Your task to perform on an android device: Search for the best websites on the internet Image 0: 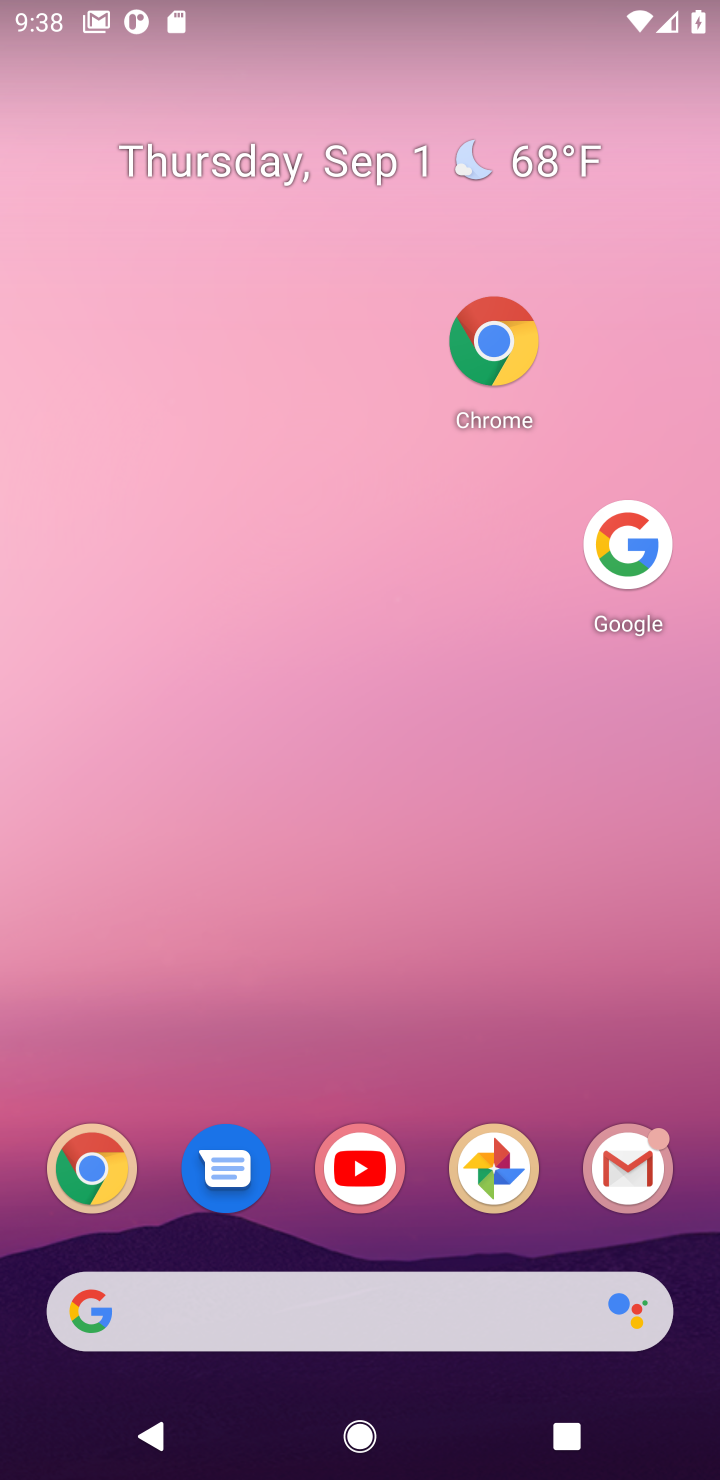
Step 0: drag from (248, 1122) to (350, 558)
Your task to perform on an android device: Search for the best websites on the internet Image 1: 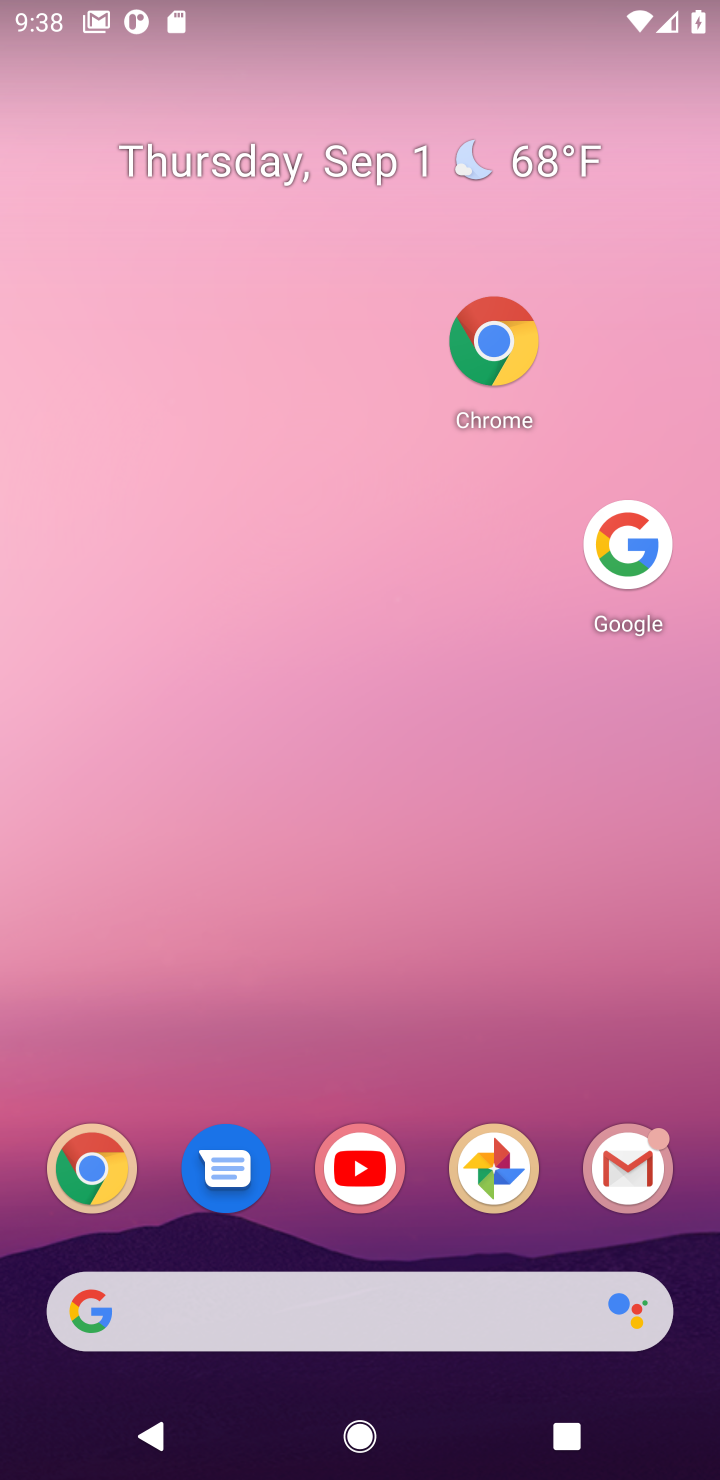
Step 1: click (633, 529)
Your task to perform on an android device: Search for the best websites on the internet Image 2: 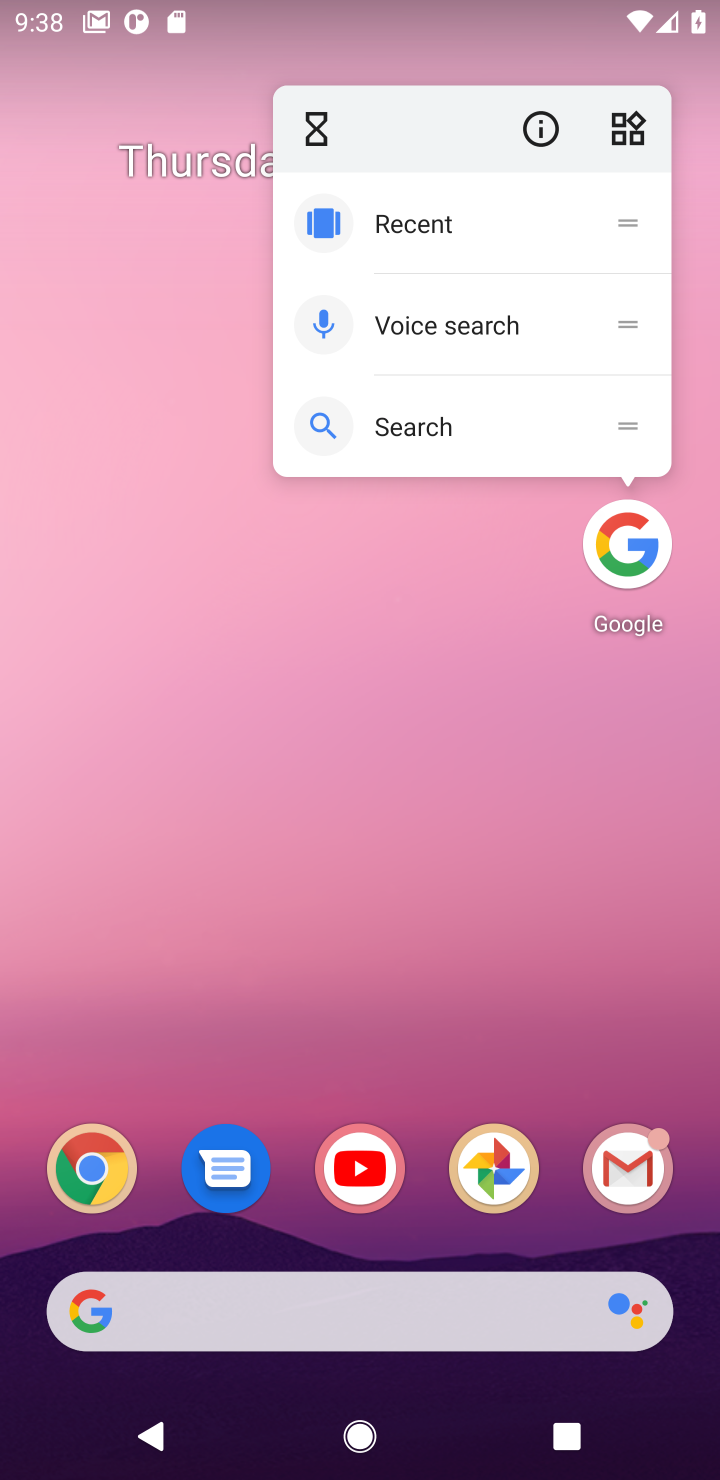
Step 2: click (633, 529)
Your task to perform on an android device: Search for the best websites on the internet Image 3: 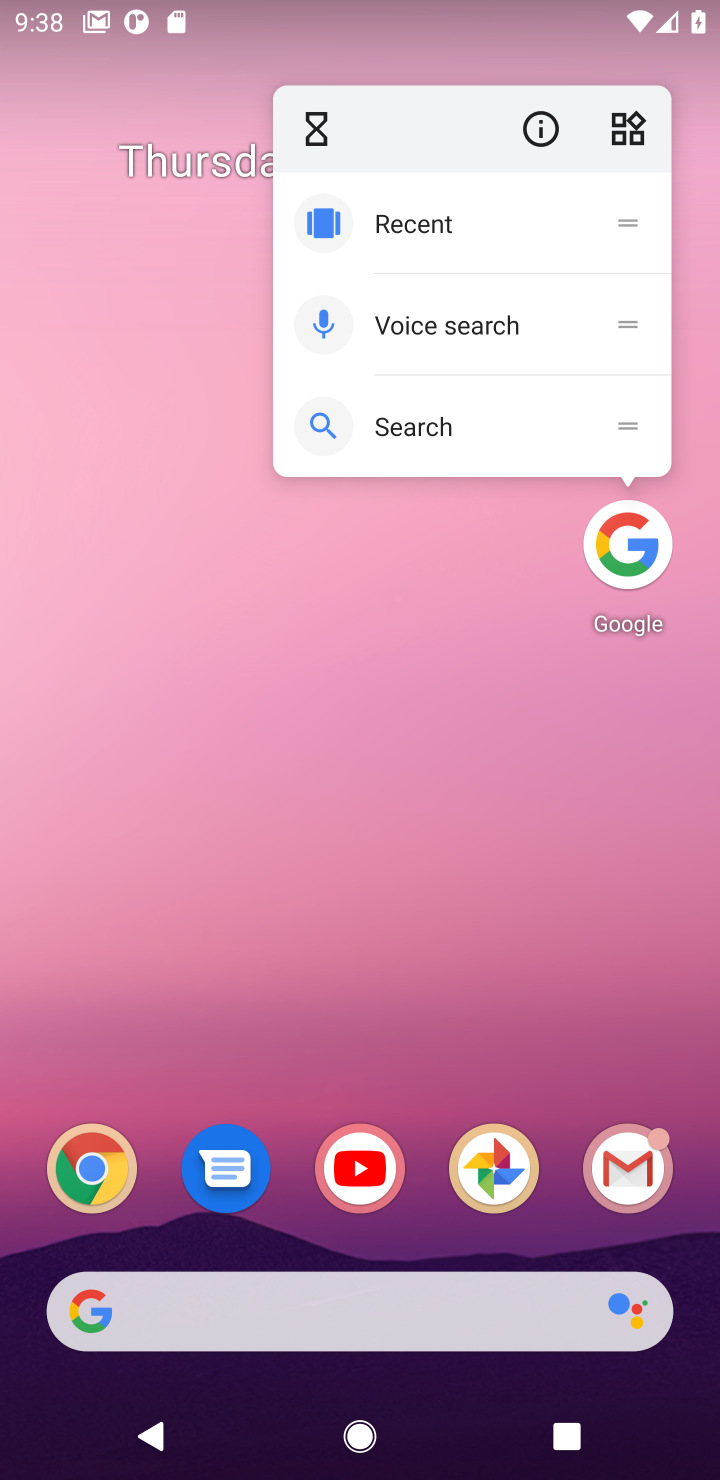
Step 3: click (600, 548)
Your task to perform on an android device: Search for the best websites on the internet Image 4: 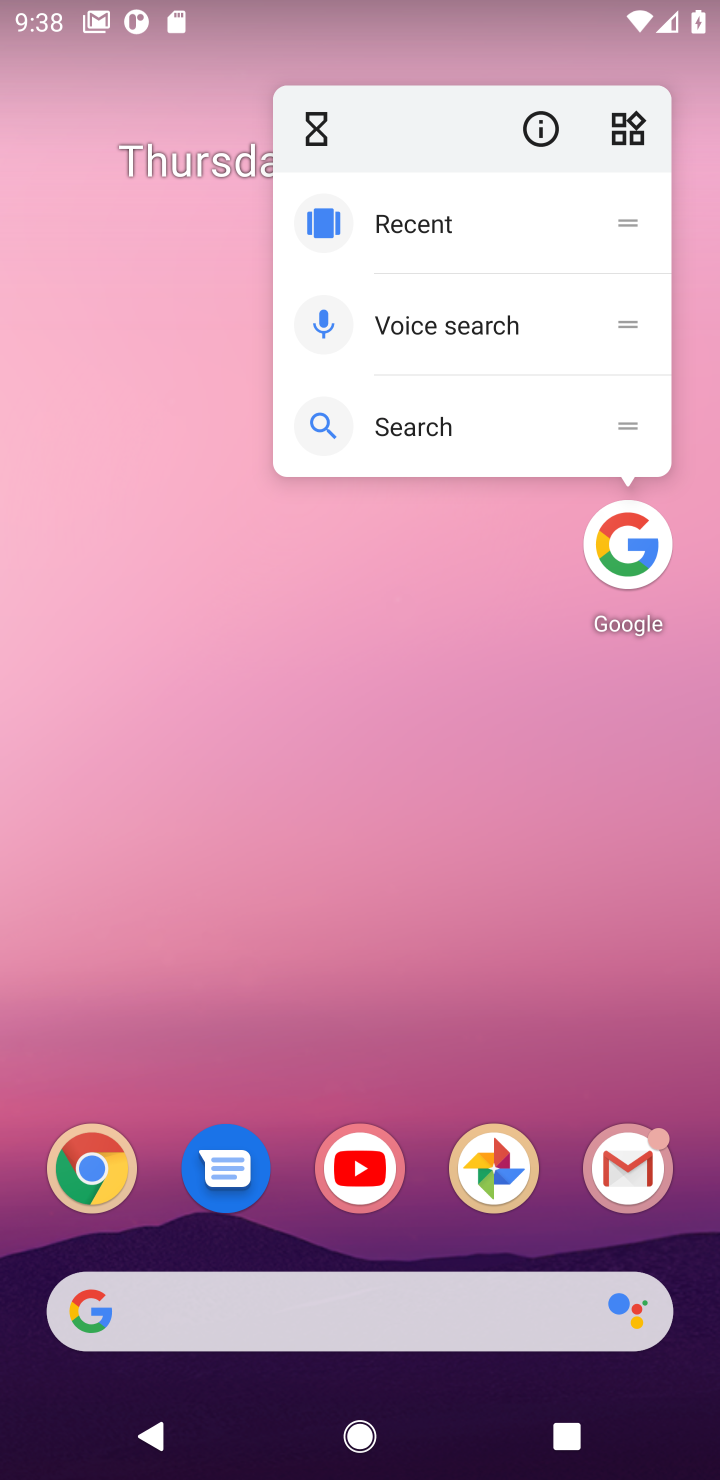
Step 4: click (600, 548)
Your task to perform on an android device: Search for the best websites on the internet Image 5: 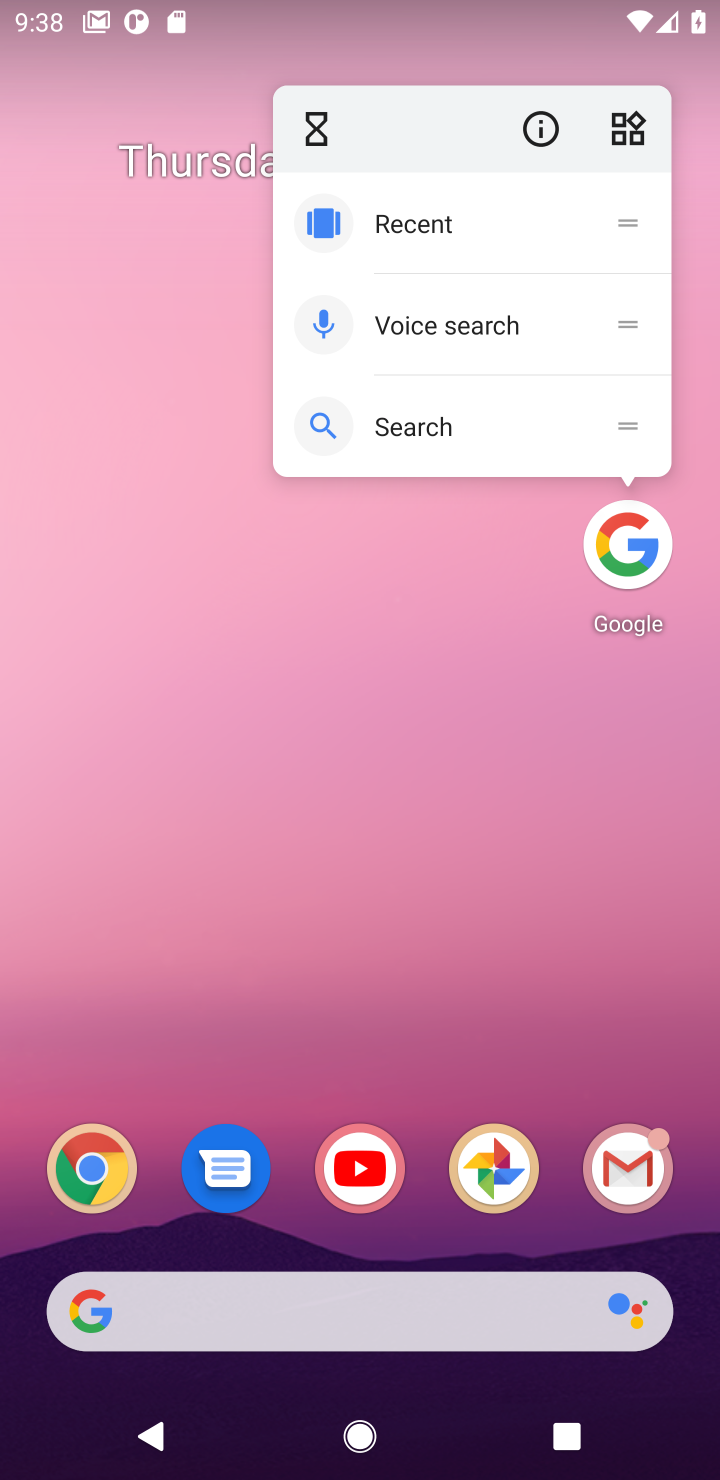
Step 5: click (633, 548)
Your task to perform on an android device: Search for the best websites on the internet Image 6: 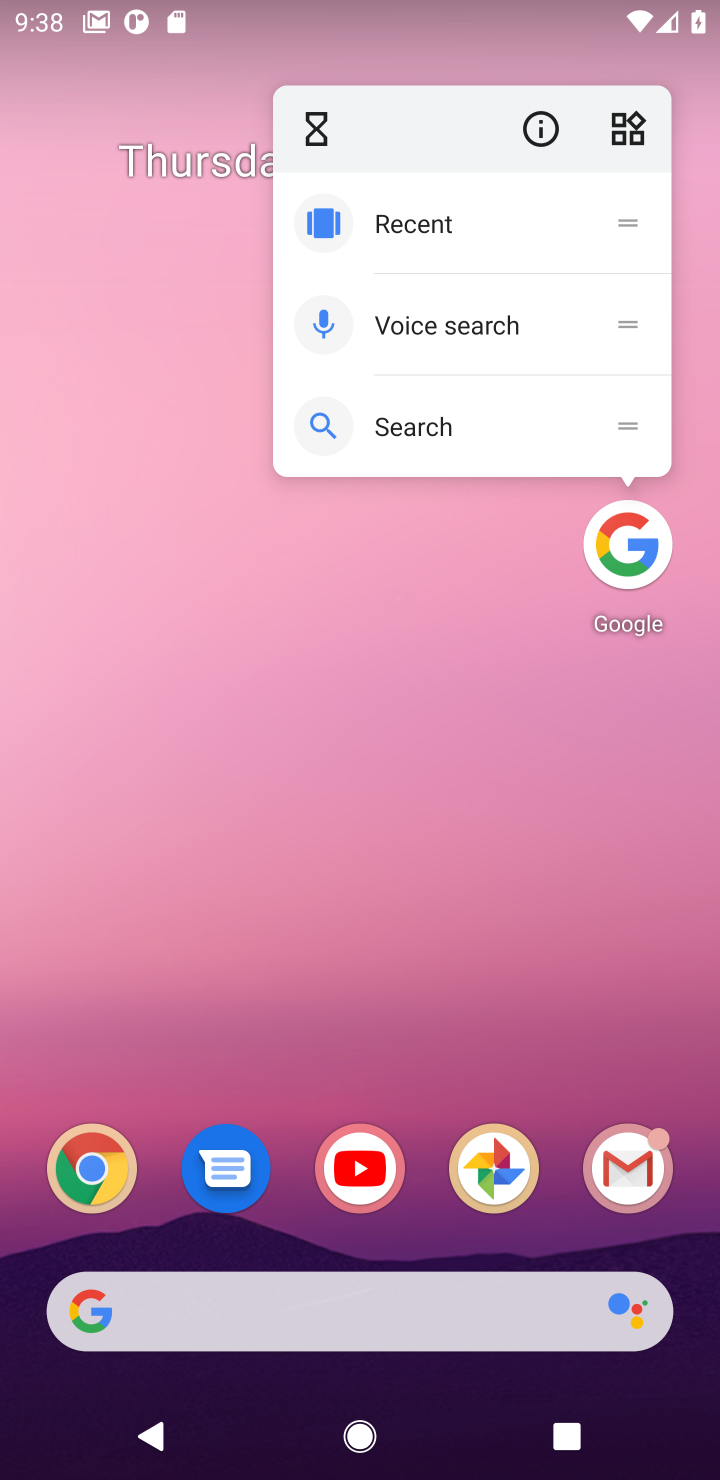
Step 6: click (626, 529)
Your task to perform on an android device: Search for the best websites on the internet Image 7: 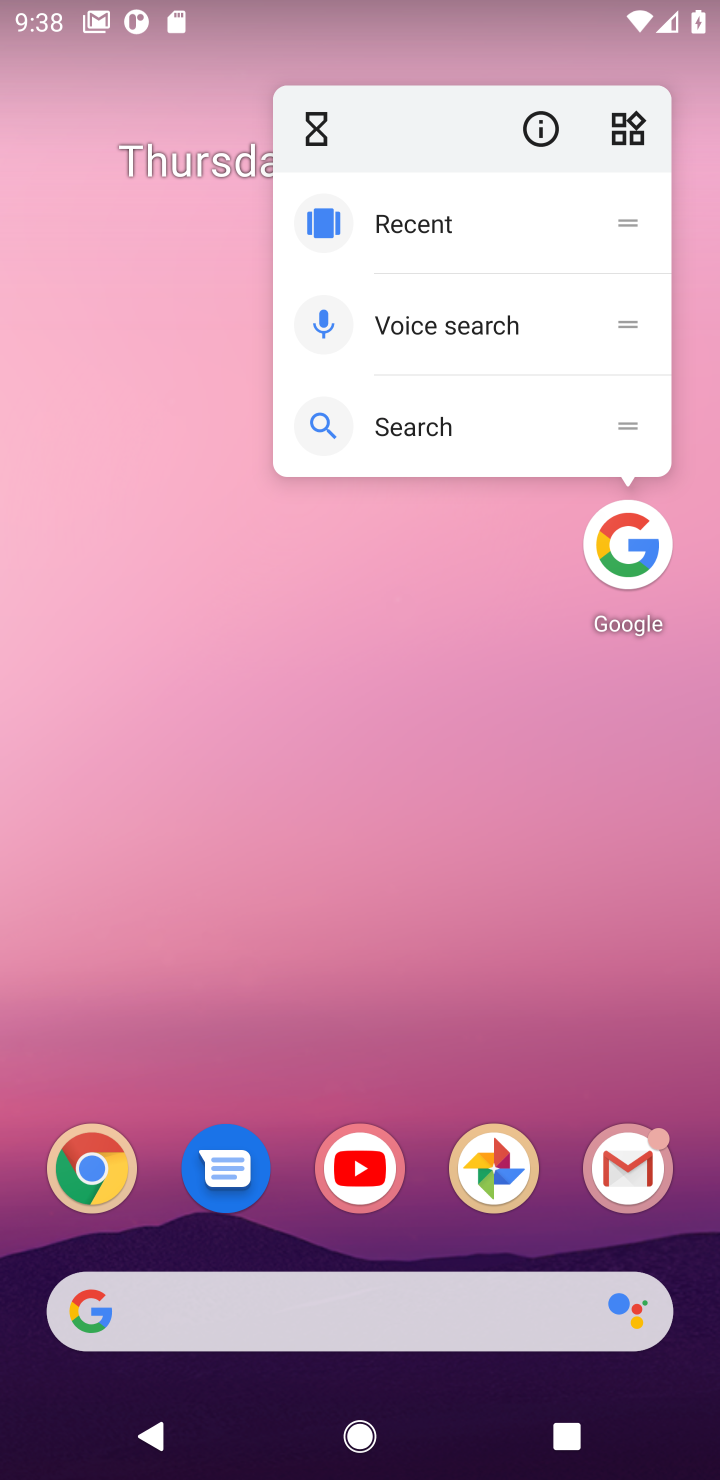
Step 7: click (626, 529)
Your task to perform on an android device: Search for the best websites on the internet Image 8: 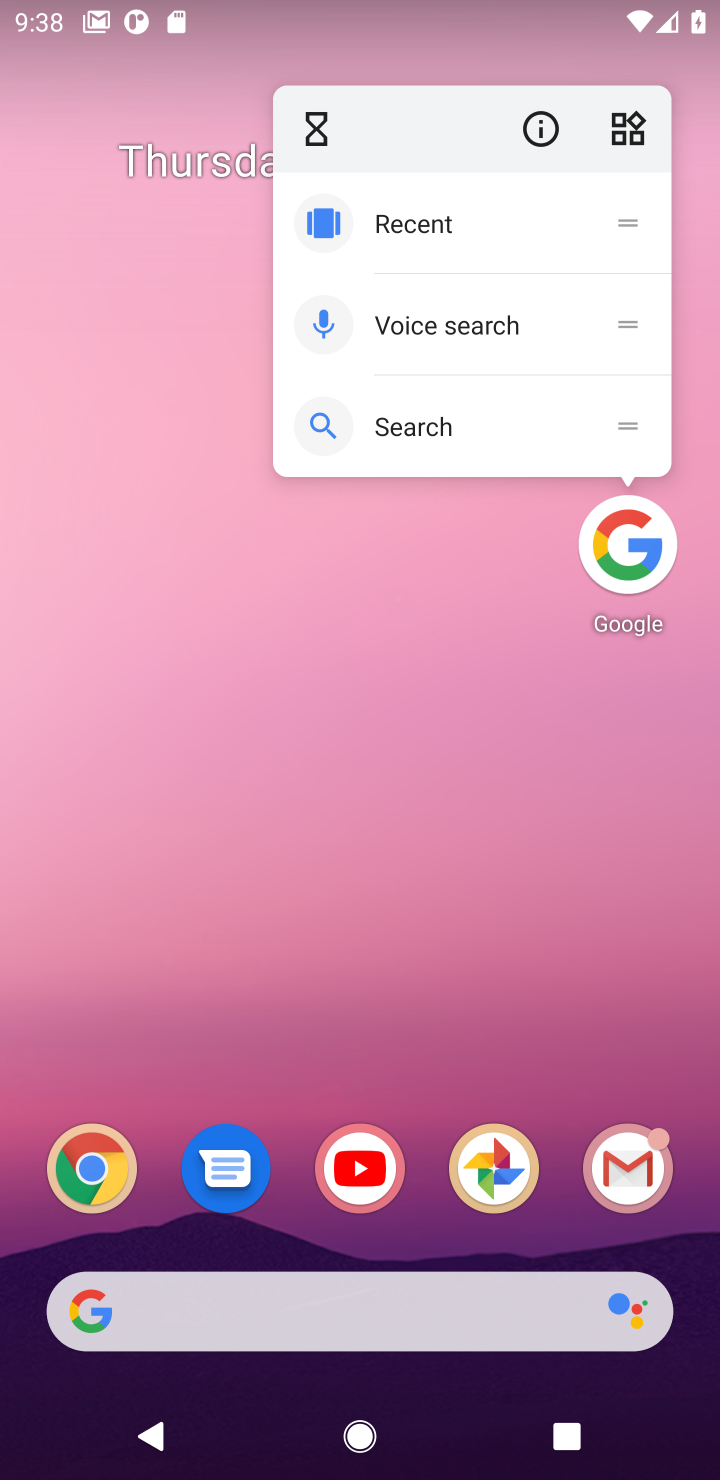
Step 8: click (626, 529)
Your task to perform on an android device: Search for the best websites on the internet Image 9: 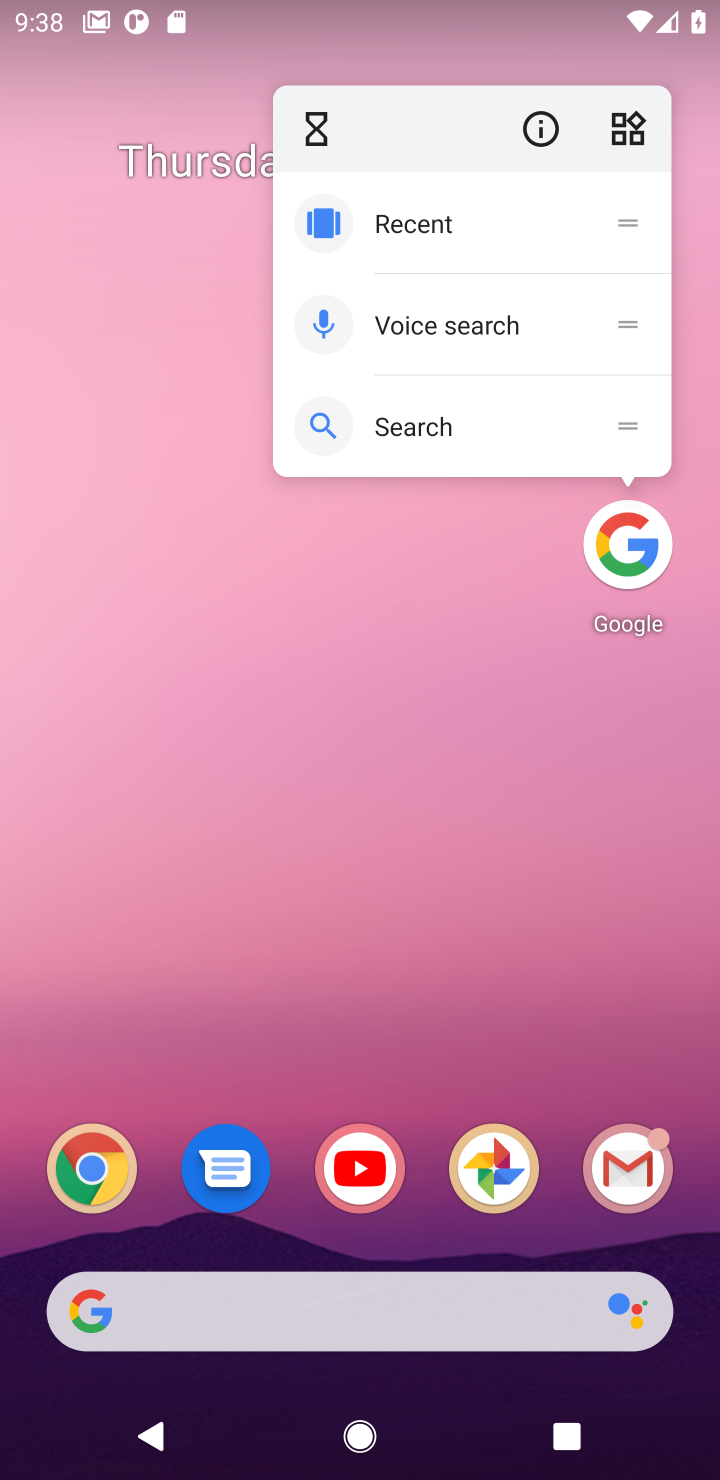
Step 9: click (660, 530)
Your task to perform on an android device: Search for the best websites on the internet Image 10: 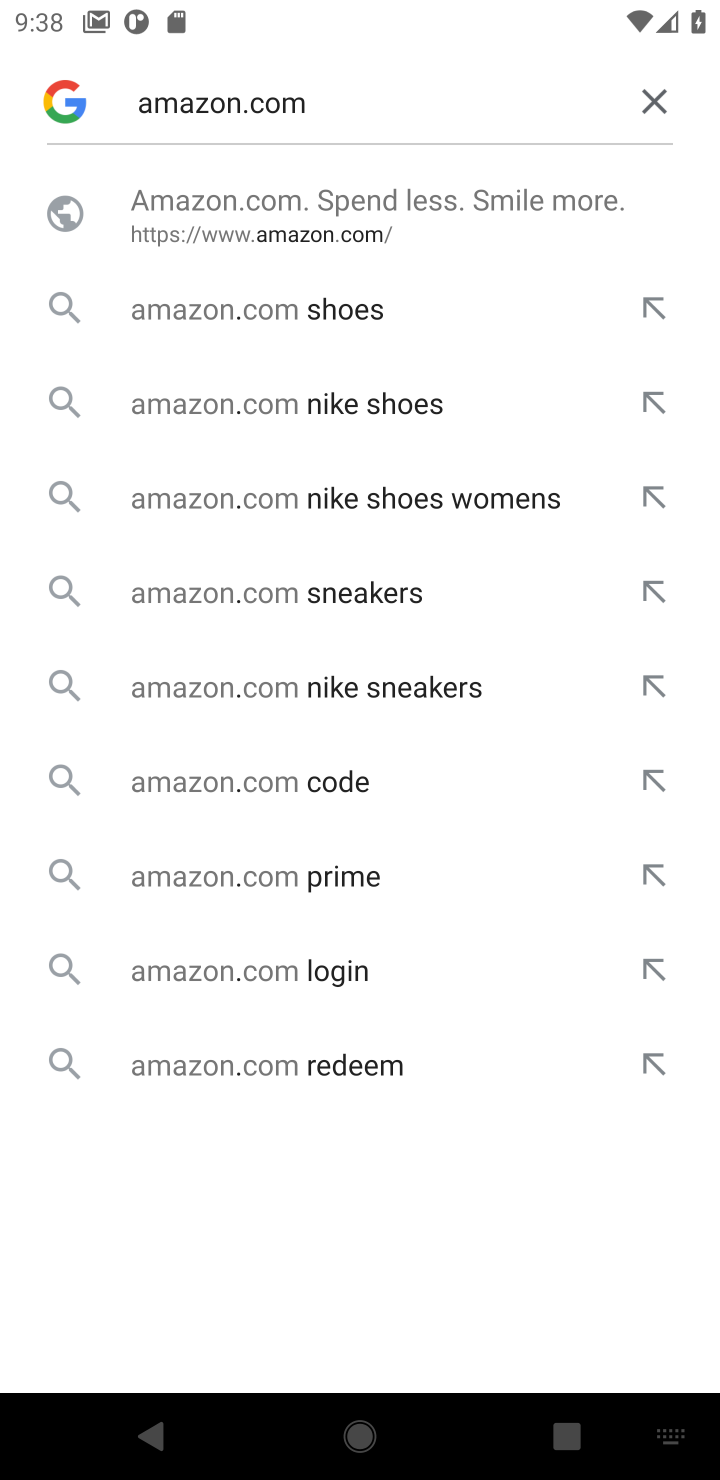
Step 10: click (663, 101)
Your task to perform on an android device: Search for the best websites on the internet Image 11: 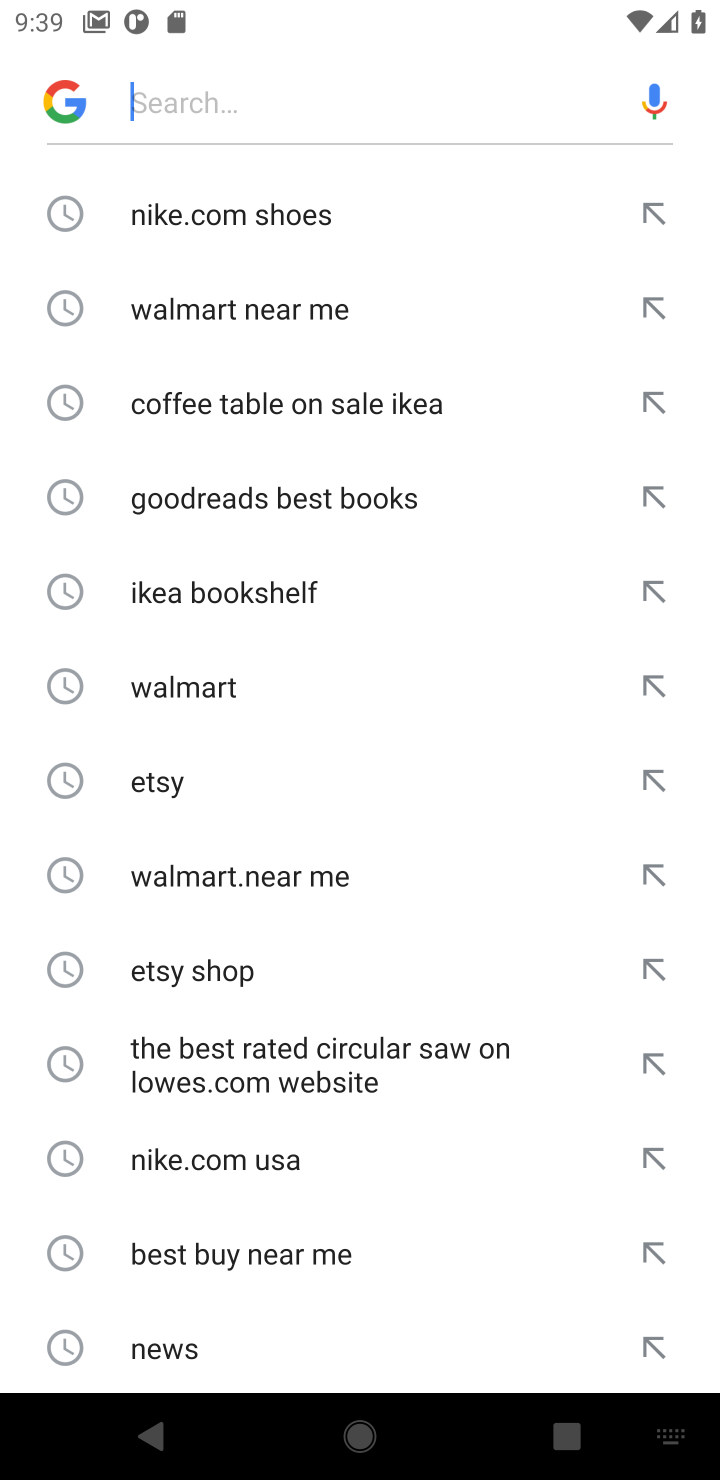
Step 11: click (244, 85)
Your task to perform on an android device: Search for the best websites on the internet Image 12: 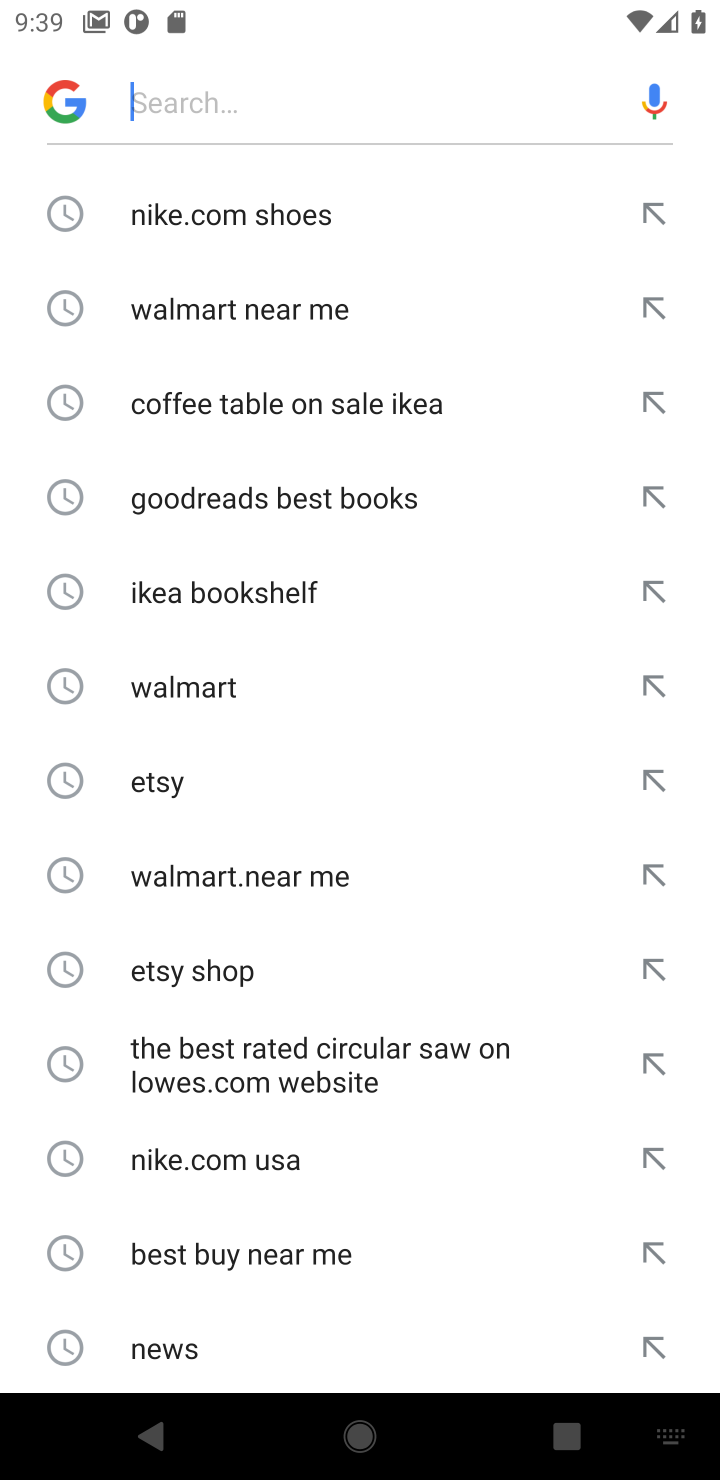
Step 12: type " the best websites on the internet "
Your task to perform on an android device: Search for the best websites on the internet Image 13: 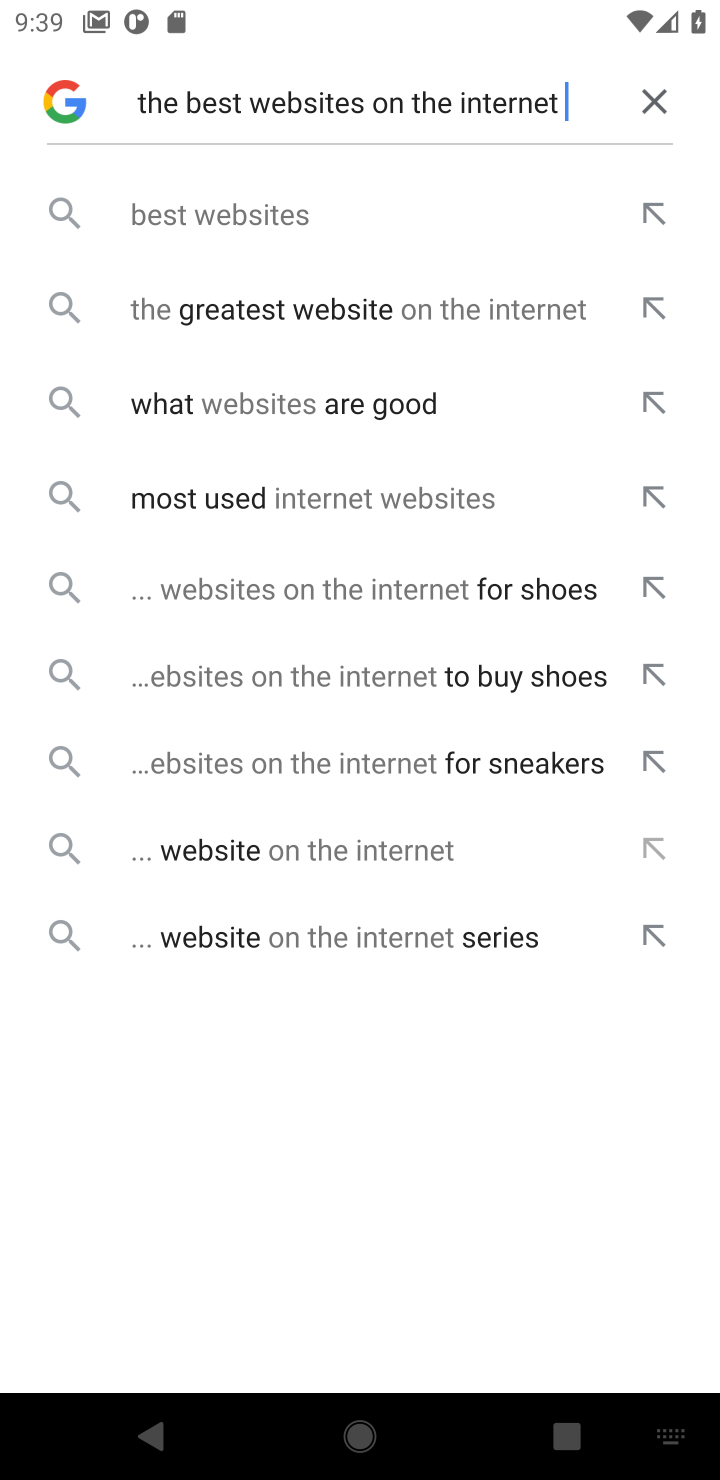
Step 13: click (286, 313)
Your task to perform on an android device: Search for the best websites on the internet Image 14: 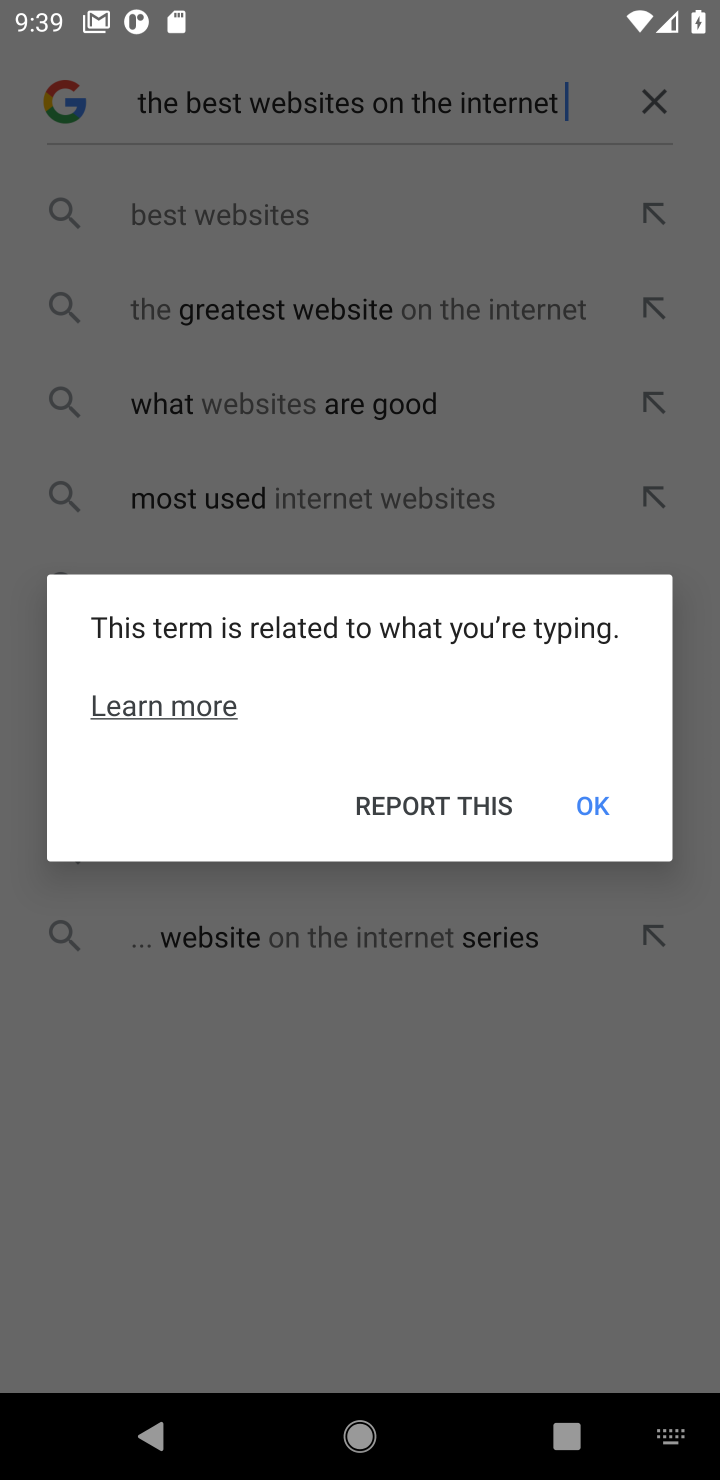
Step 14: click (610, 815)
Your task to perform on an android device: Search for the best websites on the internet Image 15: 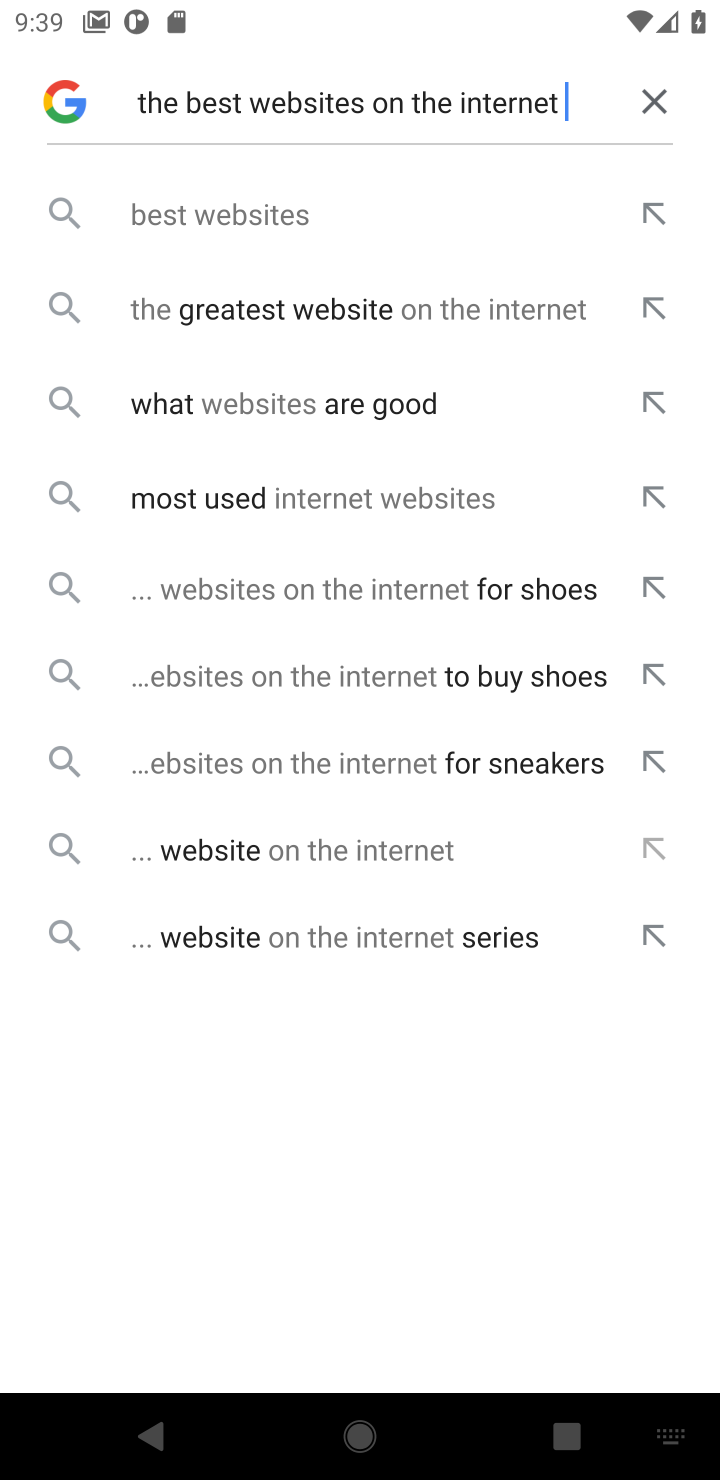
Step 15: click (291, 327)
Your task to perform on an android device: Search for the best websites on the internet Image 16: 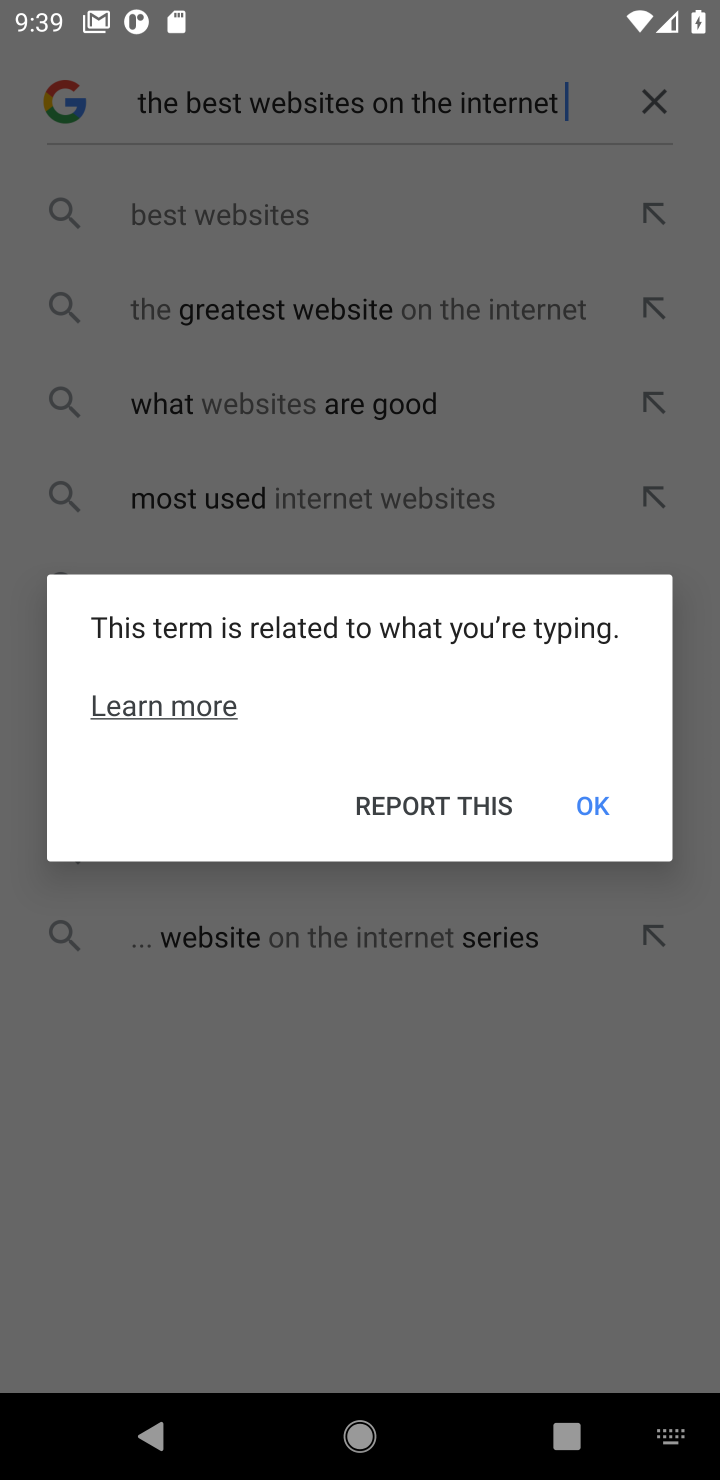
Step 16: click (628, 797)
Your task to perform on an android device: Search for the best websites on the internet Image 17: 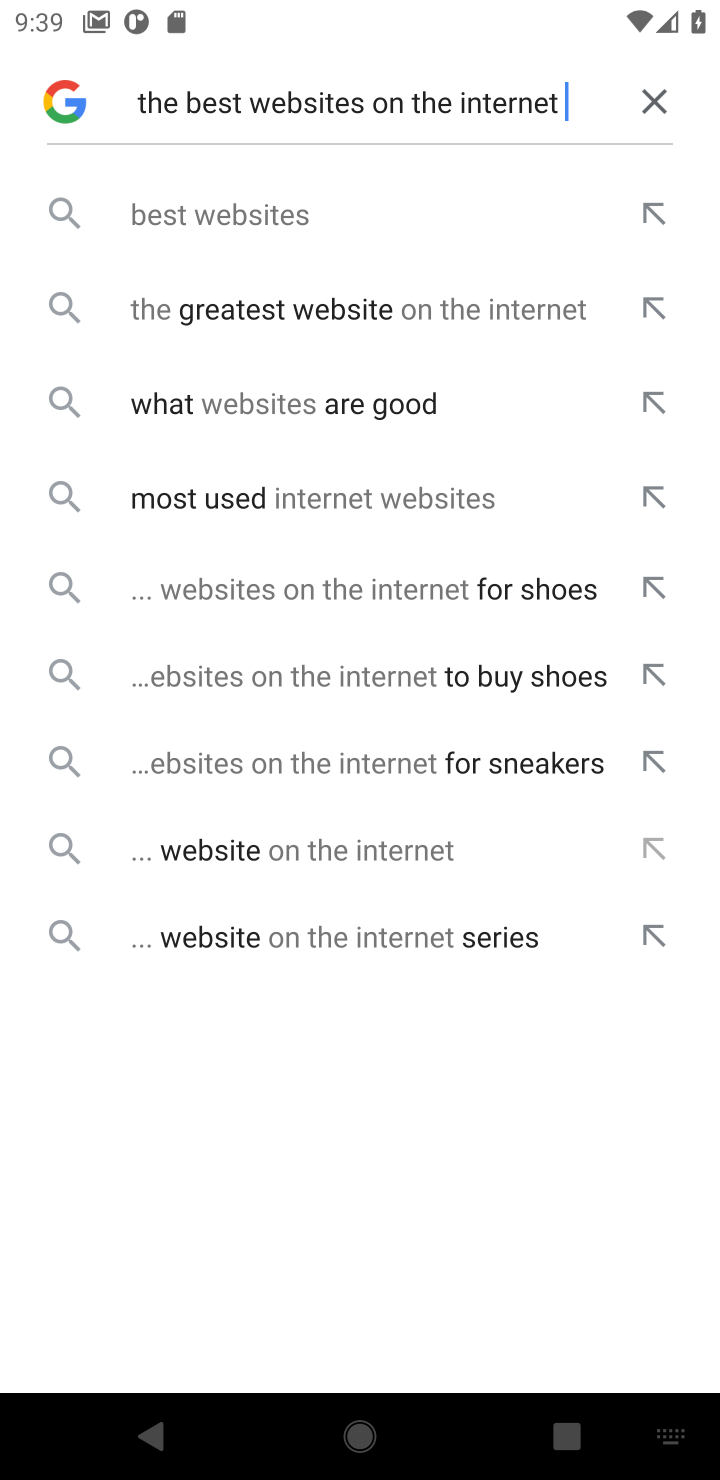
Step 17: click (238, 229)
Your task to perform on an android device: Search for the best websites on the internet Image 18: 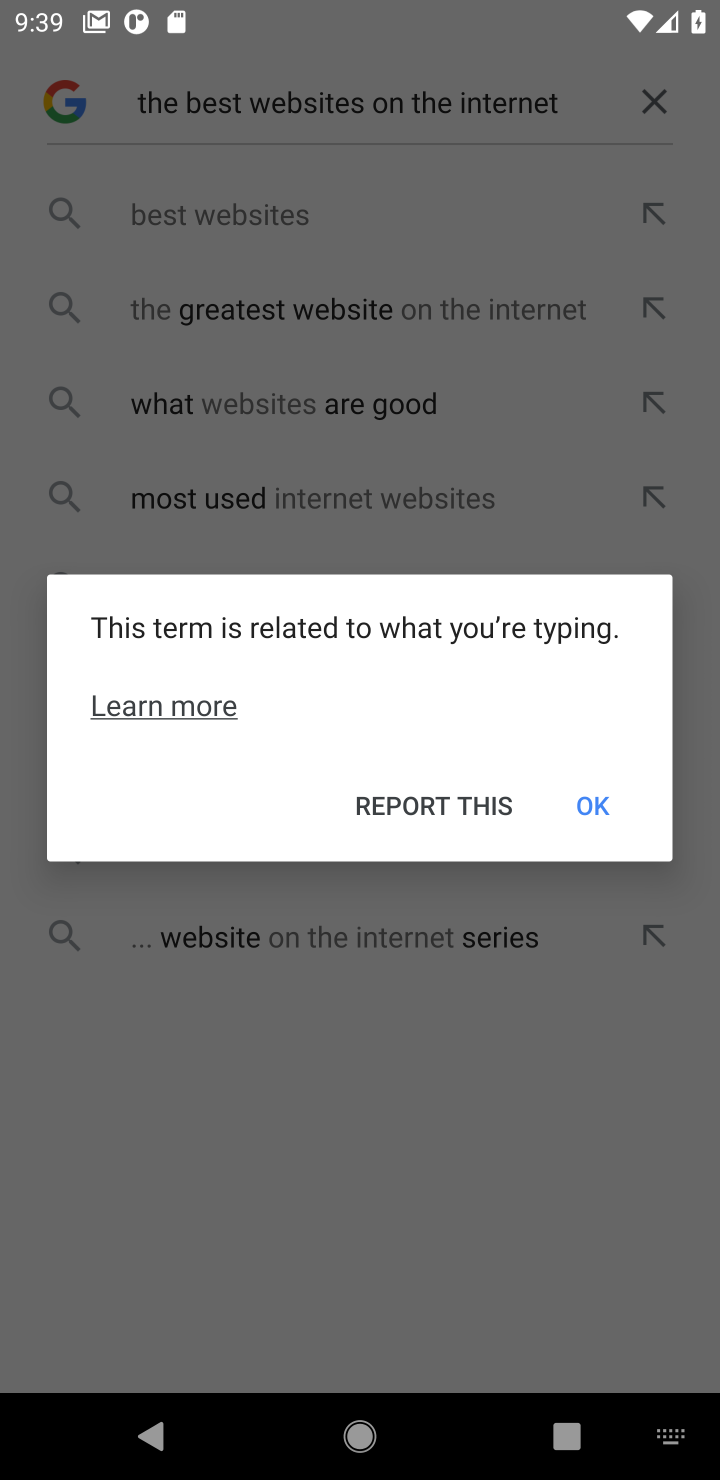
Step 18: click (591, 786)
Your task to perform on an android device: Search for the best websites on the internet Image 19: 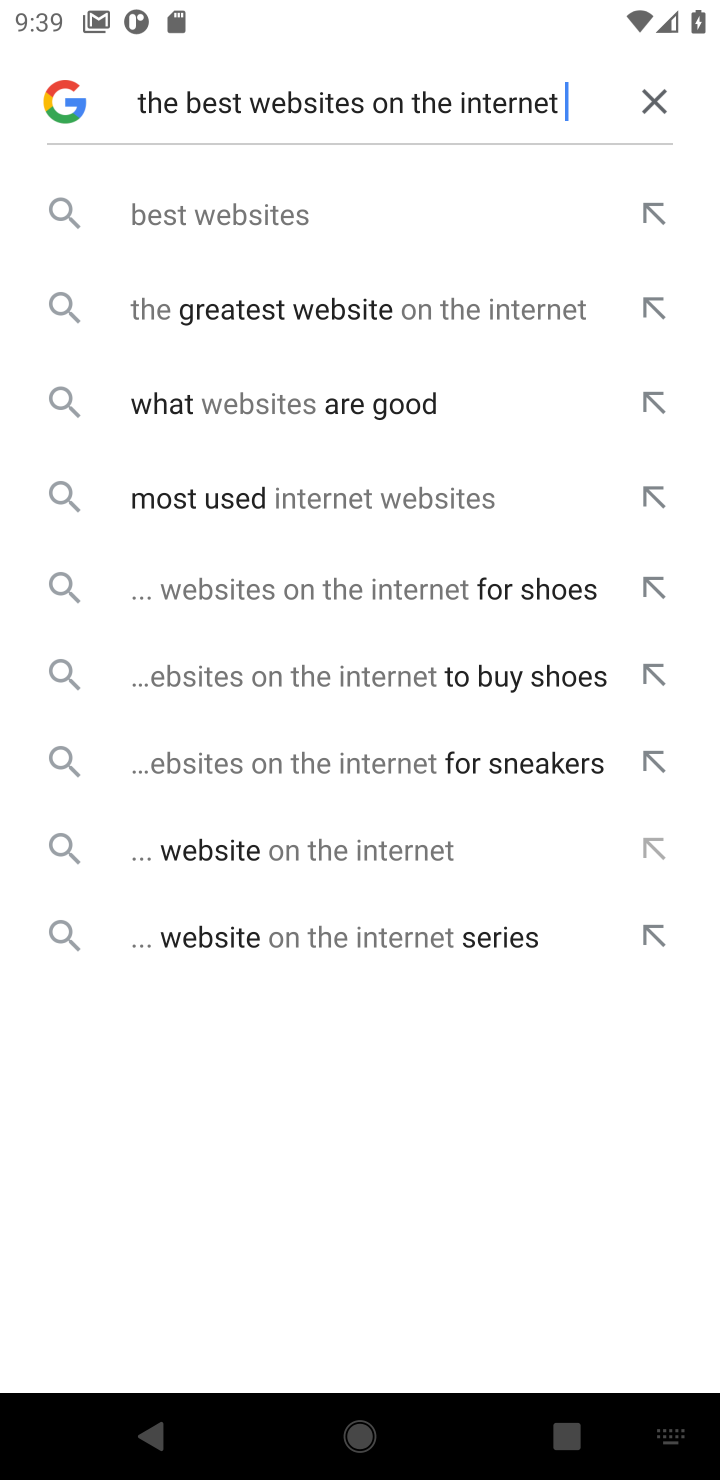
Step 19: click (370, 926)
Your task to perform on an android device: Search for the best websites on the internet Image 20: 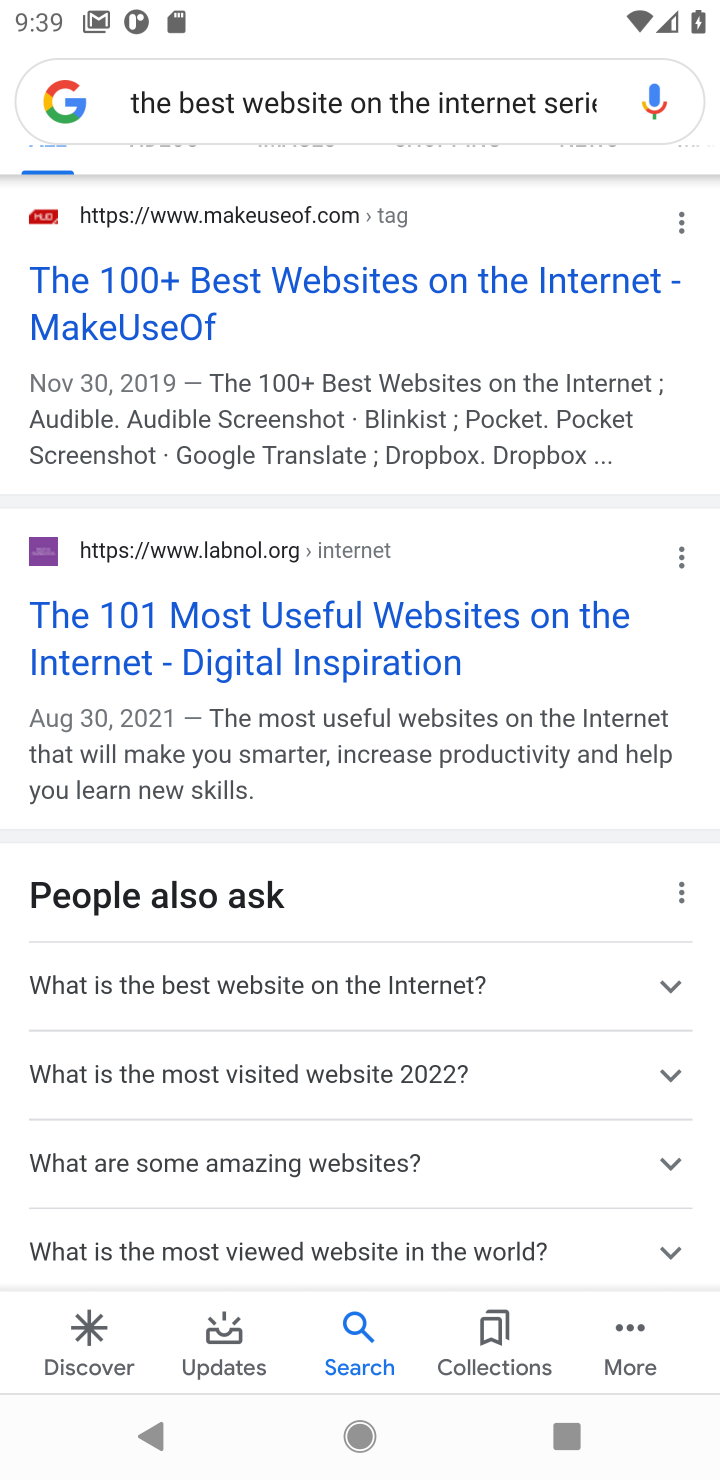
Step 20: click (399, 279)
Your task to perform on an android device: Search for the best websites on the internet Image 21: 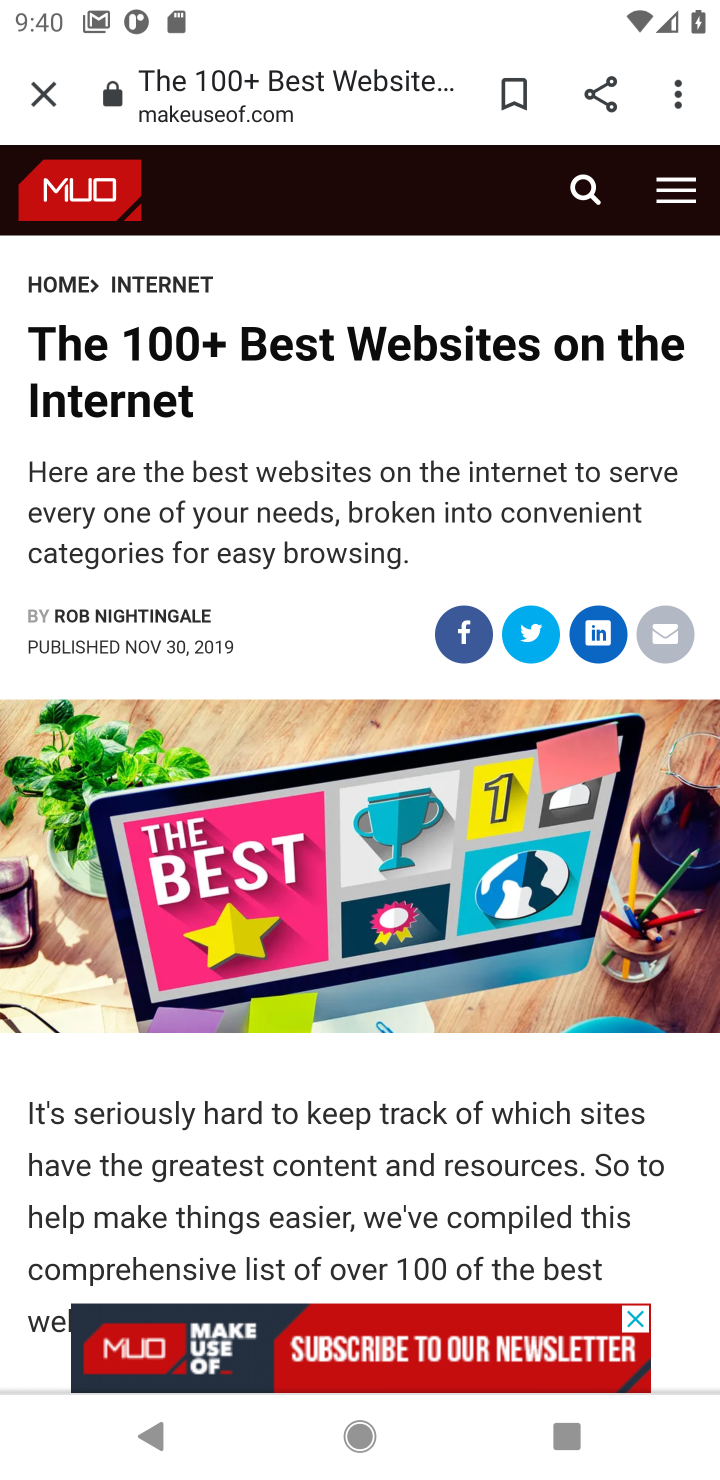
Step 21: click (638, 1311)
Your task to perform on an android device: Search for the best websites on the internet Image 22: 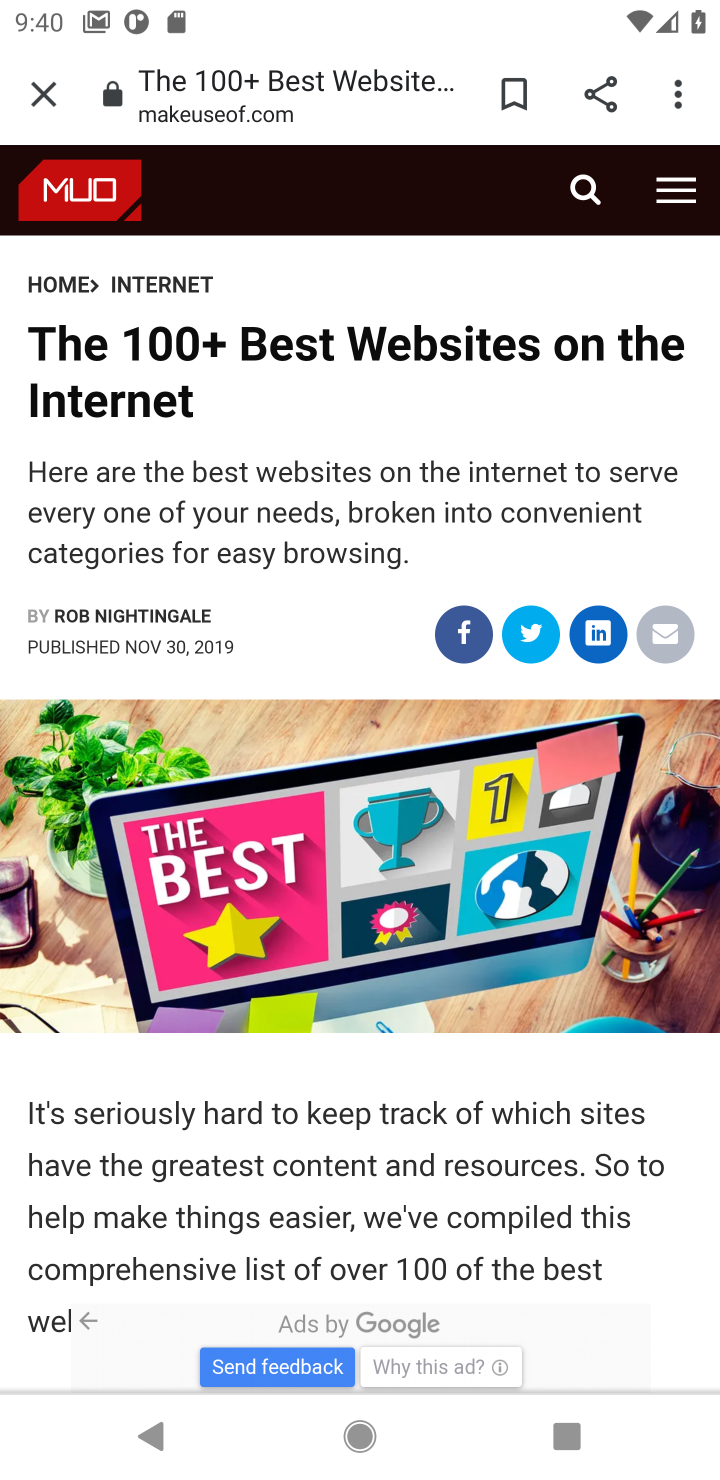
Step 22: task complete